Your task to perform on an android device: Add bose soundsport free to the cart on costco.com, then select checkout. Image 0: 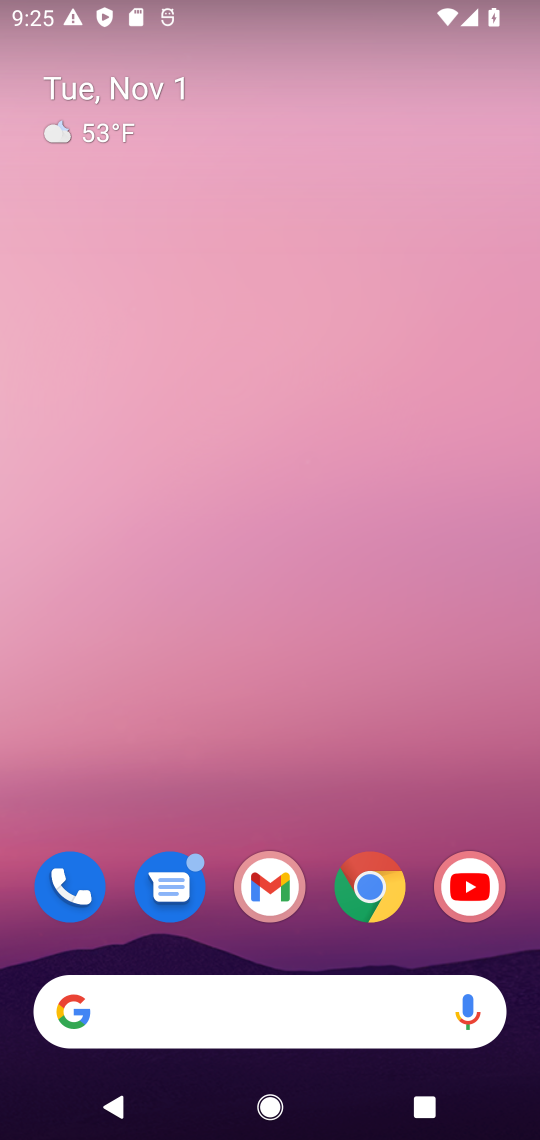
Step 0: drag from (247, 977) to (277, 383)
Your task to perform on an android device: Add bose soundsport free to the cart on costco.com, then select checkout. Image 1: 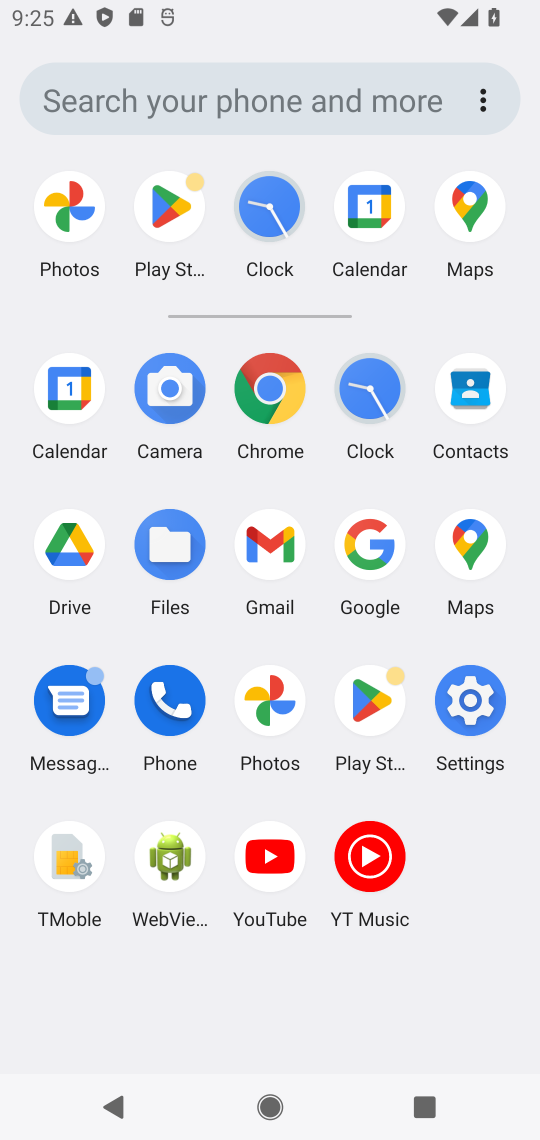
Step 1: click (360, 532)
Your task to perform on an android device: Add bose soundsport free to the cart on costco.com, then select checkout. Image 2: 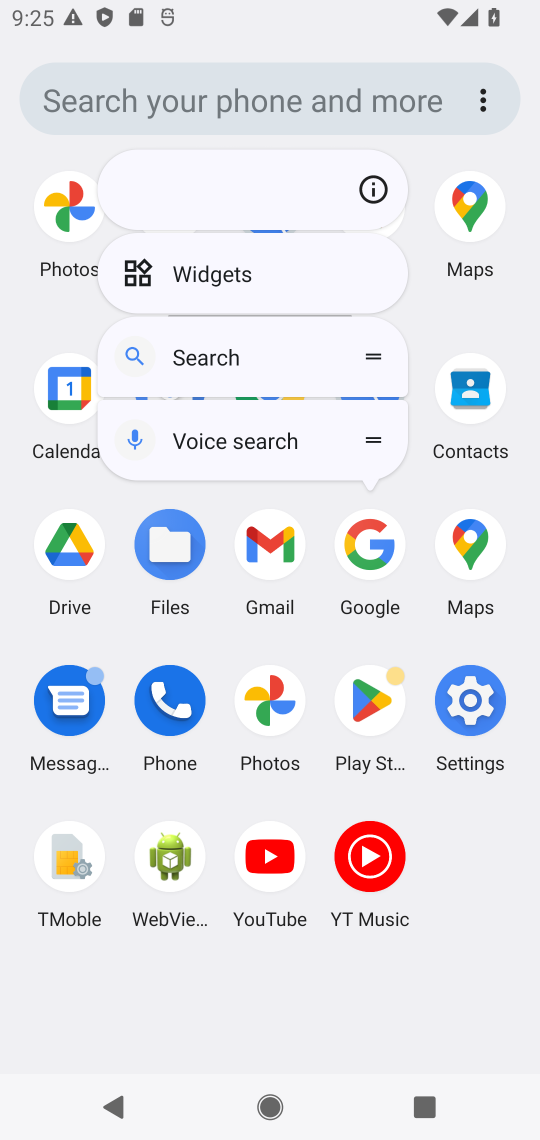
Step 2: click (360, 532)
Your task to perform on an android device: Add bose soundsport free to the cart on costco.com, then select checkout. Image 3: 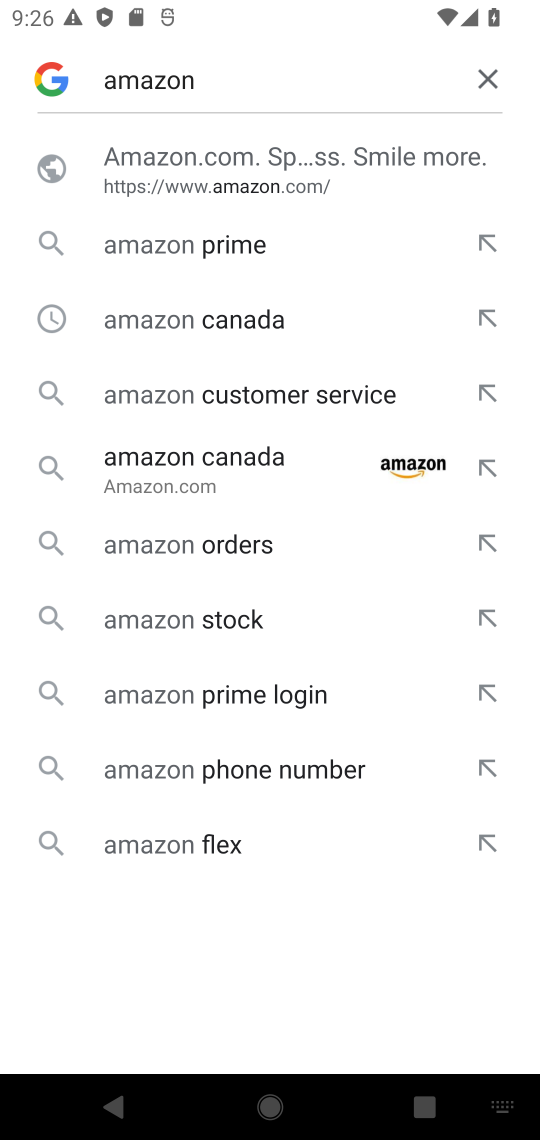
Step 3: click (489, 67)
Your task to perform on an android device: Add bose soundsport free to the cart on costco.com, then select checkout. Image 4: 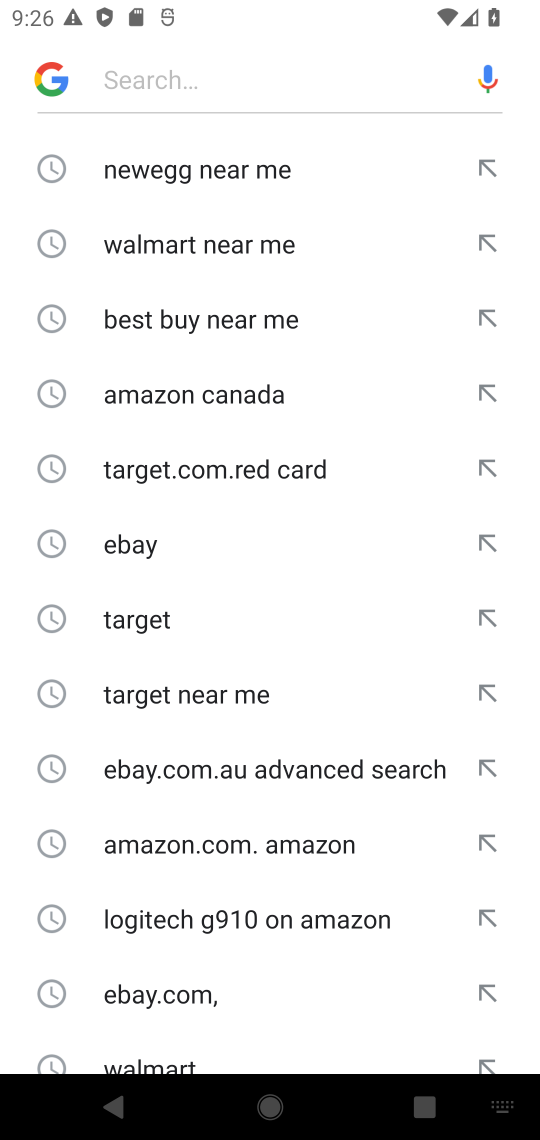
Step 4: click (199, 59)
Your task to perform on an android device: Add bose soundsport free to the cart on costco.com, then select checkout. Image 5: 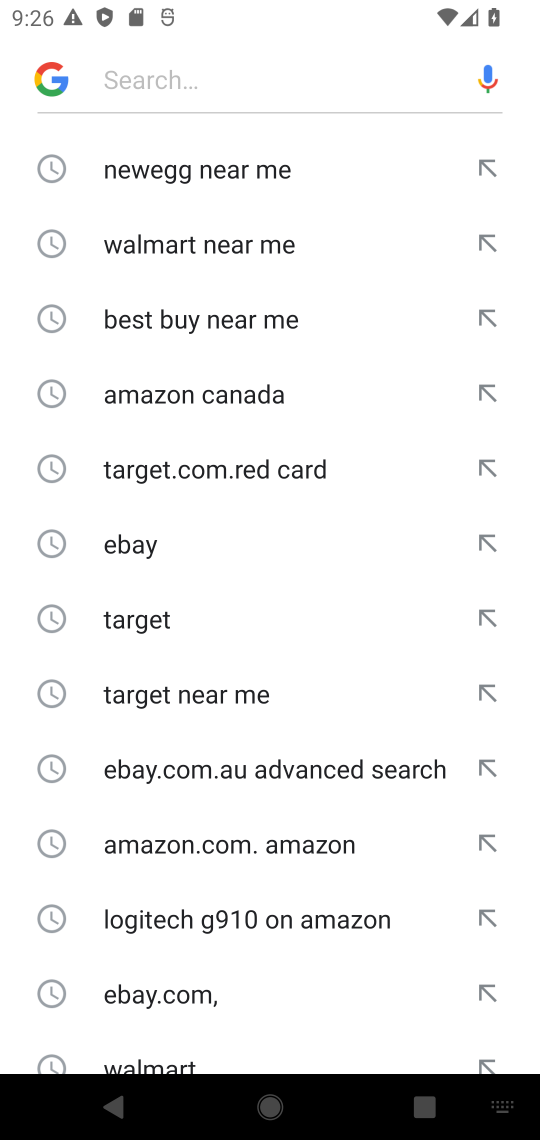
Step 5: type "costco "
Your task to perform on an android device: Add bose soundsport free to the cart on costco.com, then select checkout. Image 6: 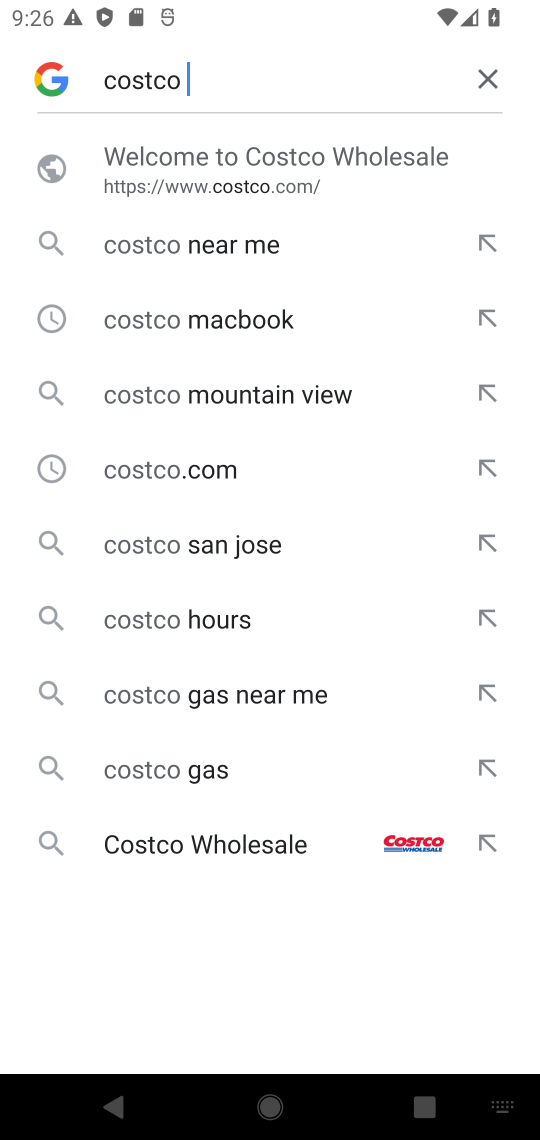
Step 6: click (254, 175)
Your task to perform on an android device: Add bose soundsport free to the cart on costco.com, then select checkout. Image 7: 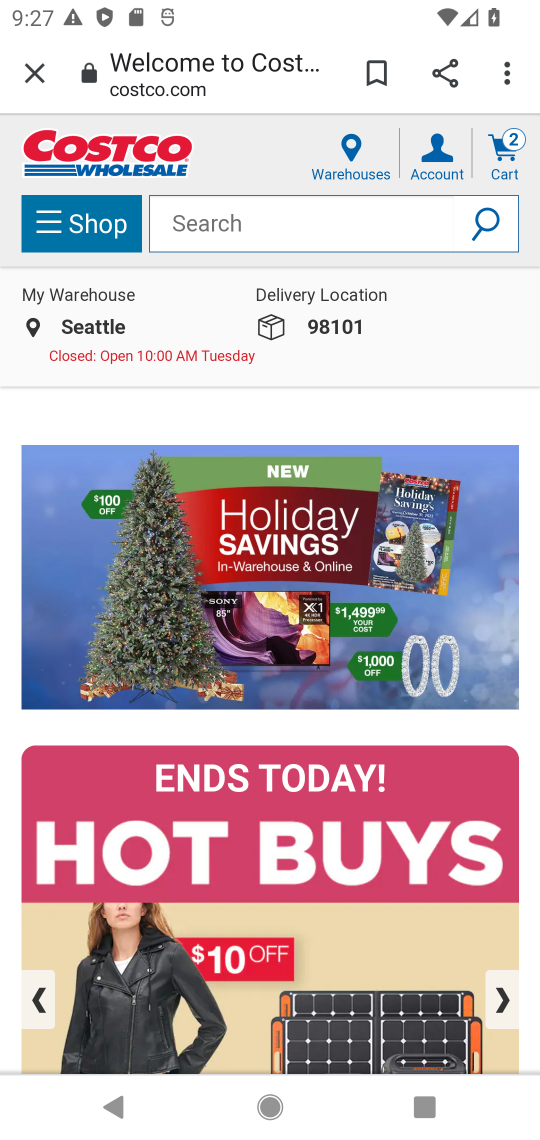
Step 7: click (329, 203)
Your task to perform on an android device: Add bose soundsport free to the cart on costco.com, then select checkout. Image 8: 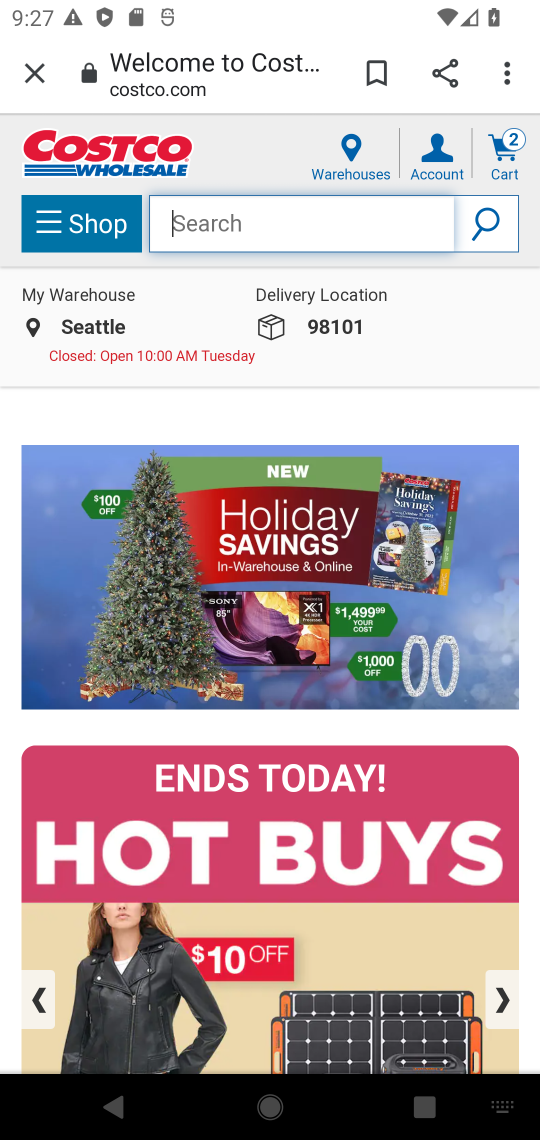
Step 8: type " soundsport free  "
Your task to perform on an android device: Add bose soundsport free to the cart on costco.com, then select checkout. Image 9: 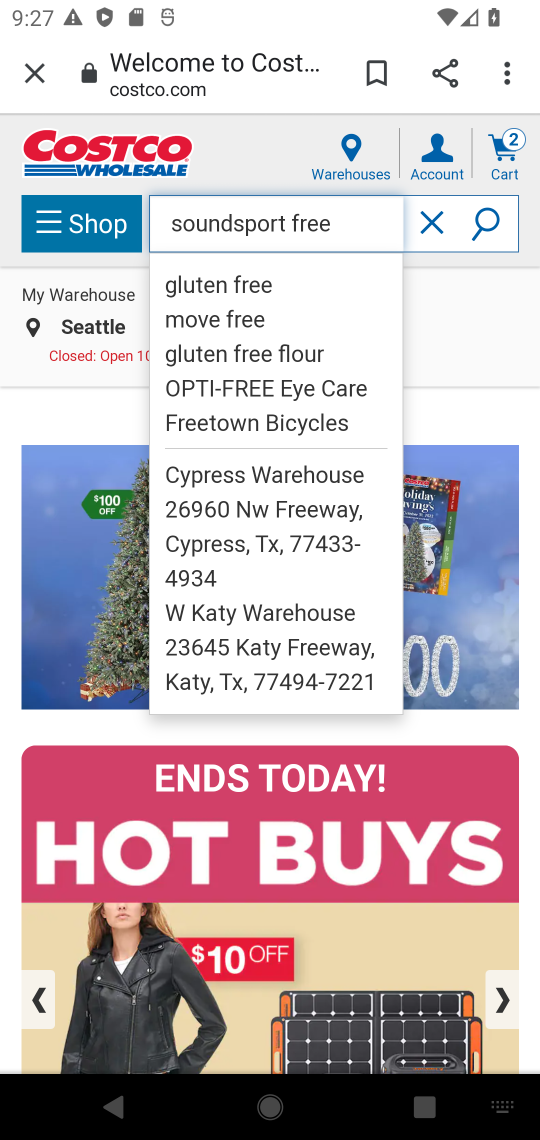
Step 9: click (481, 225)
Your task to perform on an android device: Add bose soundsport free to the cart on costco.com, then select checkout. Image 10: 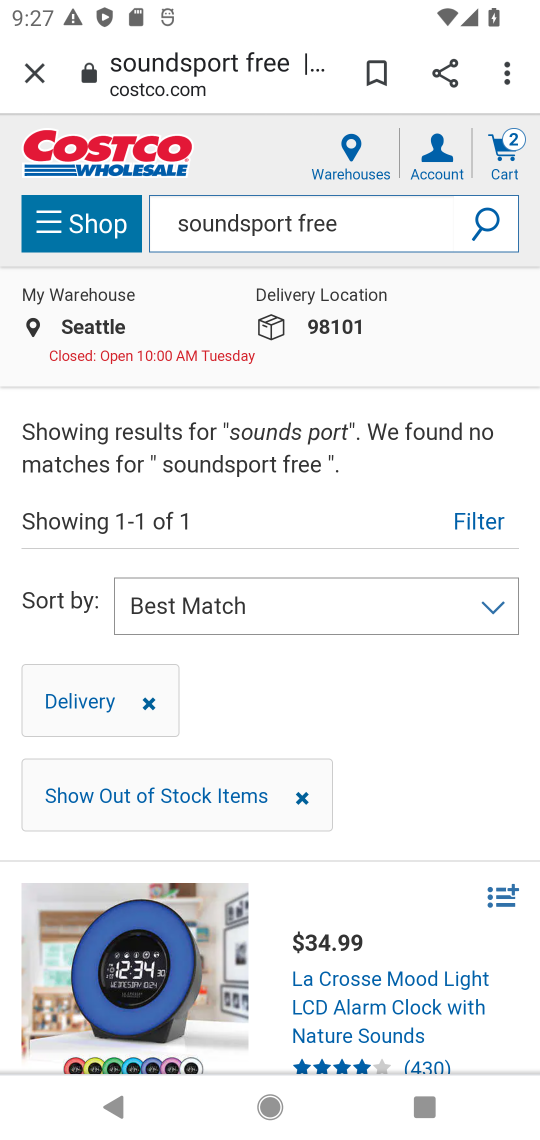
Step 10: task complete